Your task to perform on an android device: set the timer Image 0: 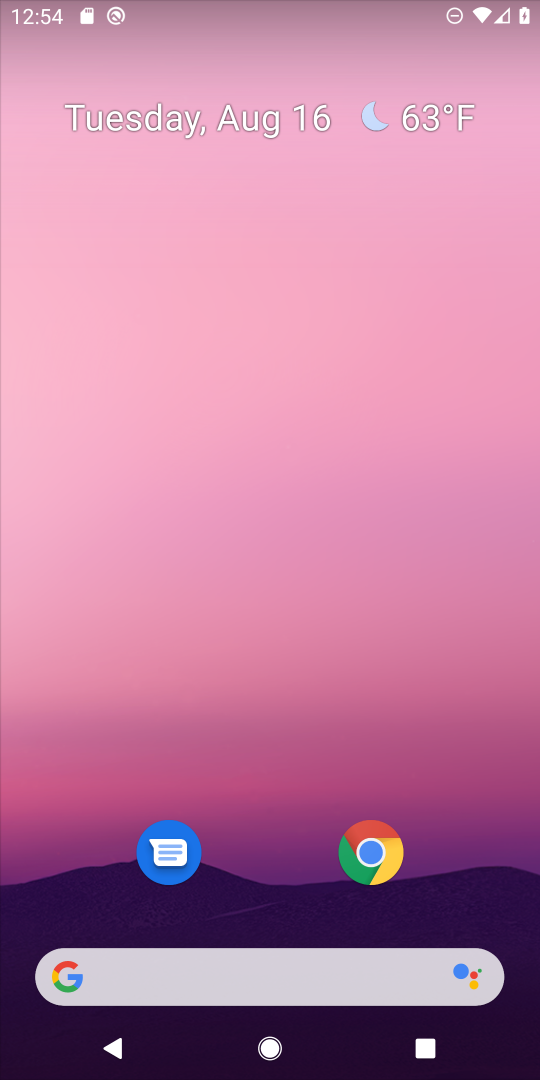
Step 0: drag from (262, 882) to (364, 199)
Your task to perform on an android device: set the timer Image 1: 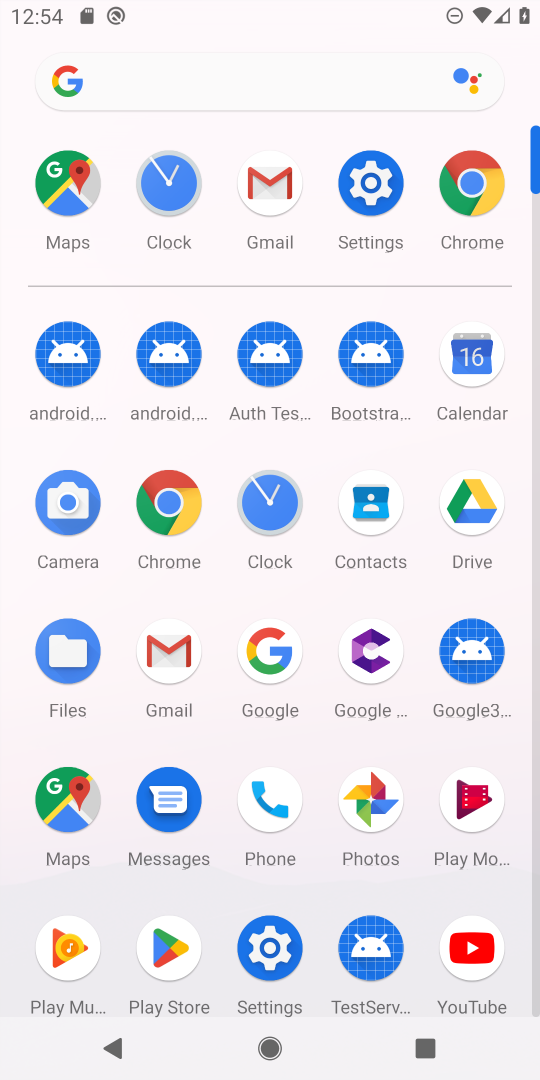
Step 1: click (272, 510)
Your task to perform on an android device: set the timer Image 2: 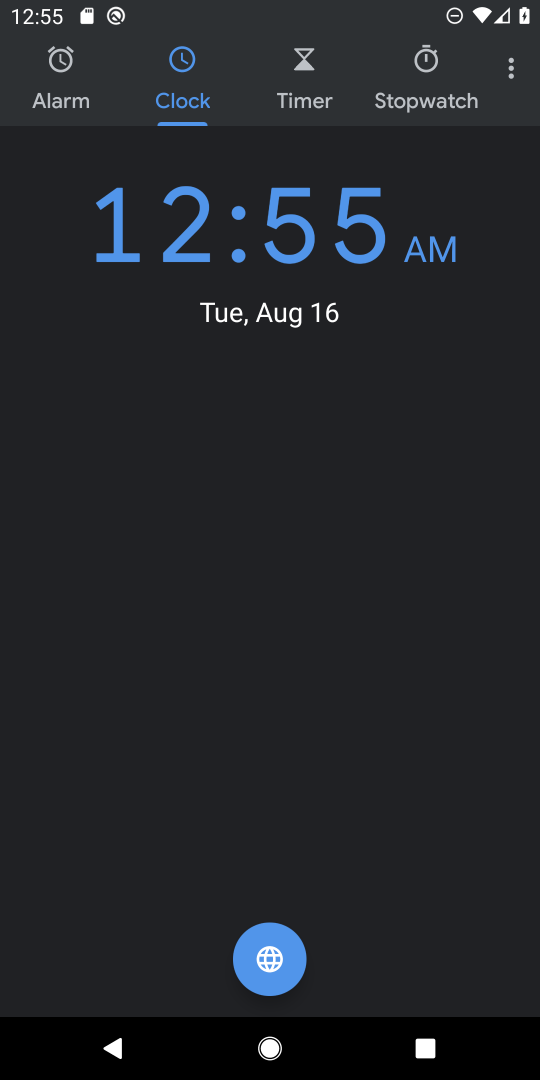
Step 2: click (307, 78)
Your task to perform on an android device: set the timer Image 3: 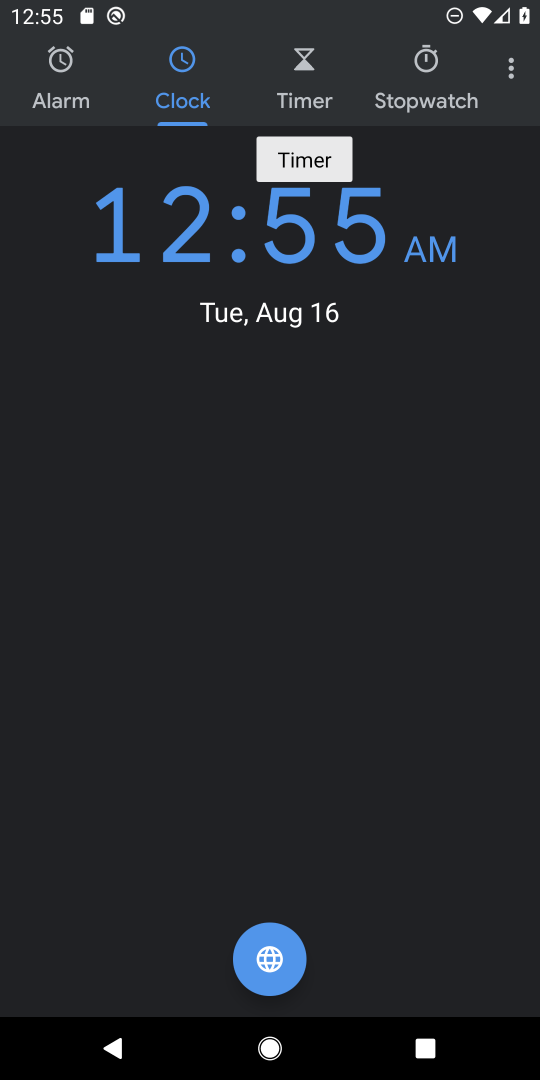
Step 3: click (313, 90)
Your task to perform on an android device: set the timer Image 4: 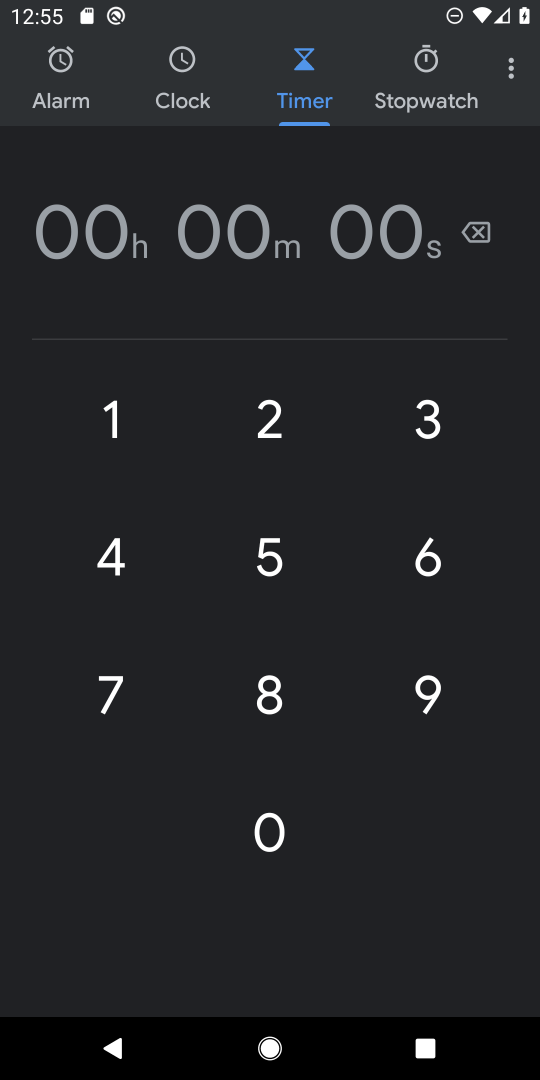
Step 4: click (271, 402)
Your task to perform on an android device: set the timer Image 5: 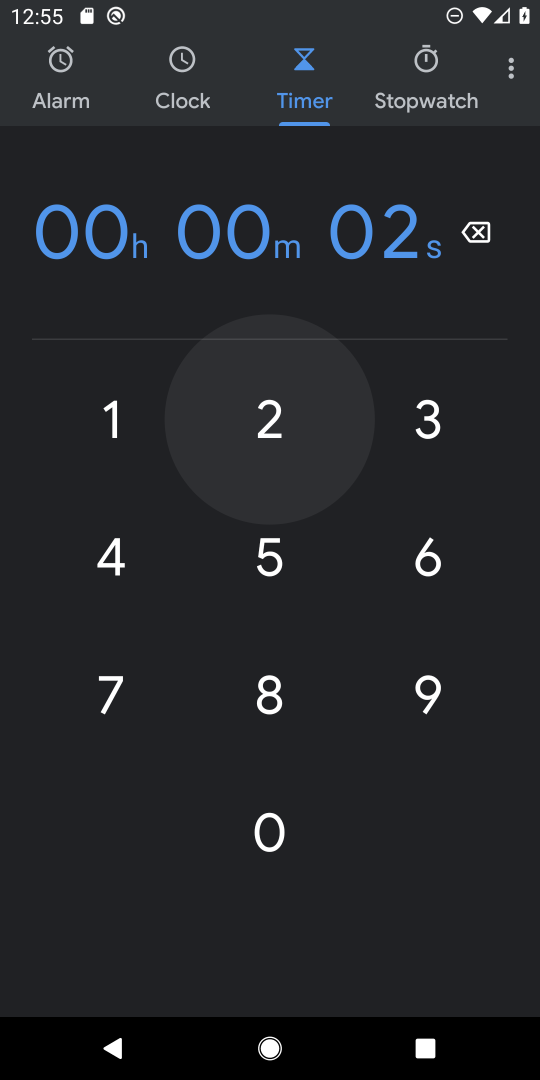
Step 5: click (439, 415)
Your task to perform on an android device: set the timer Image 6: 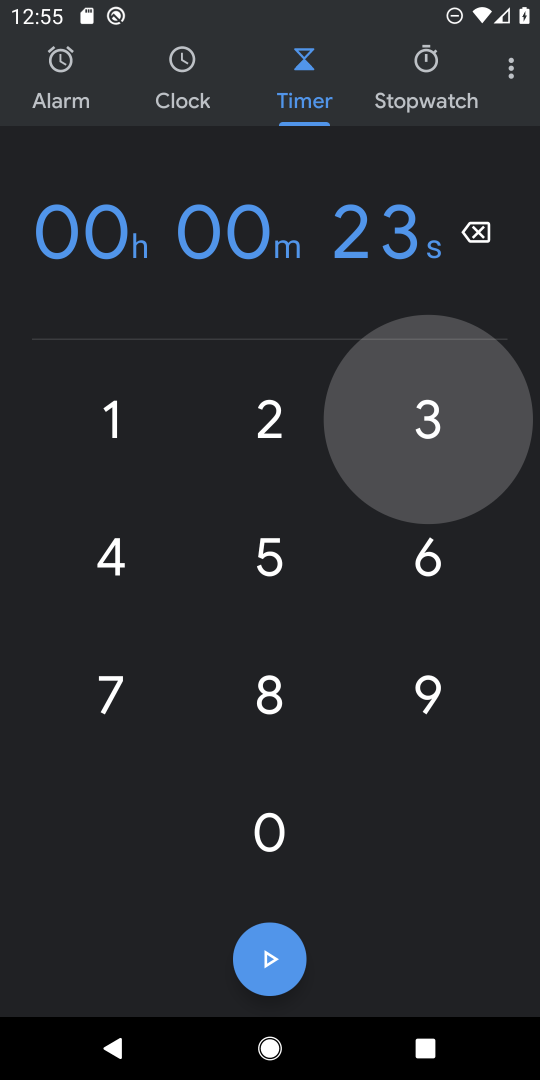
Step 6: click (280, 532)
Your task to perform on an android device: set the timer Image 7: 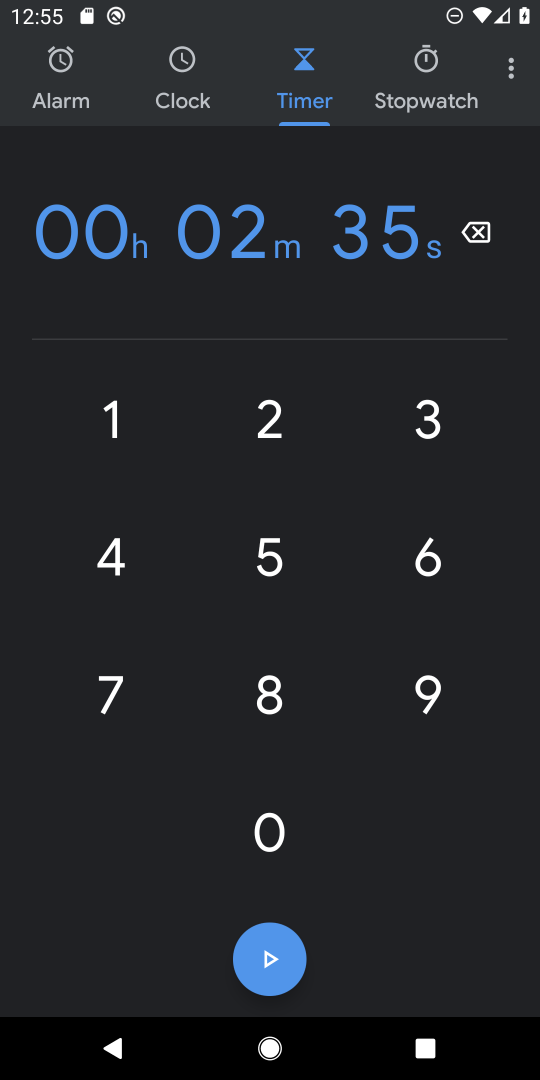
Step 7: click (437, 551)
Your task to perform on an android device: set the timer Image 8: 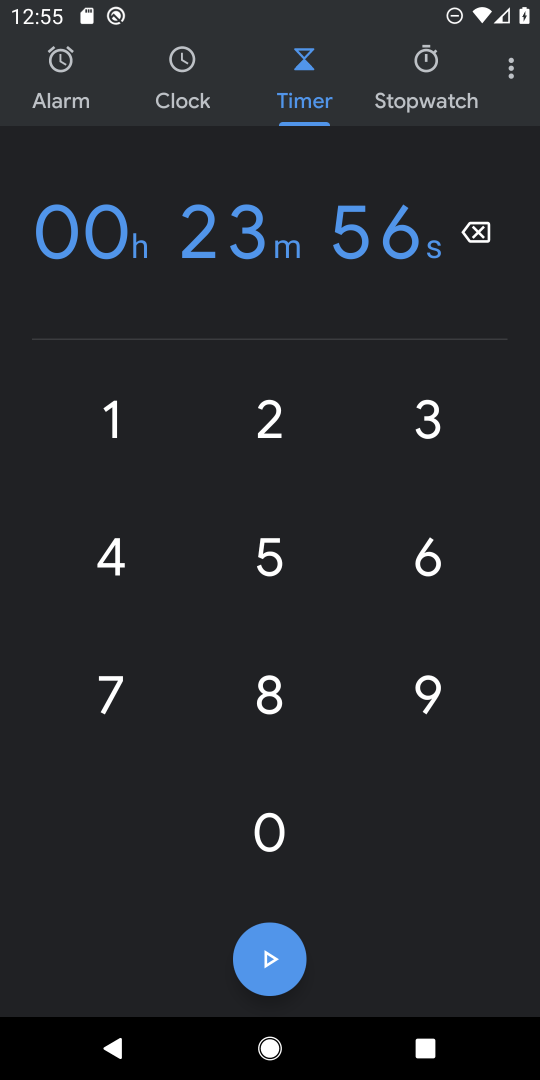
Step 8: click (116, 678)
Your task to perform on an android device: set the timer Image 9: 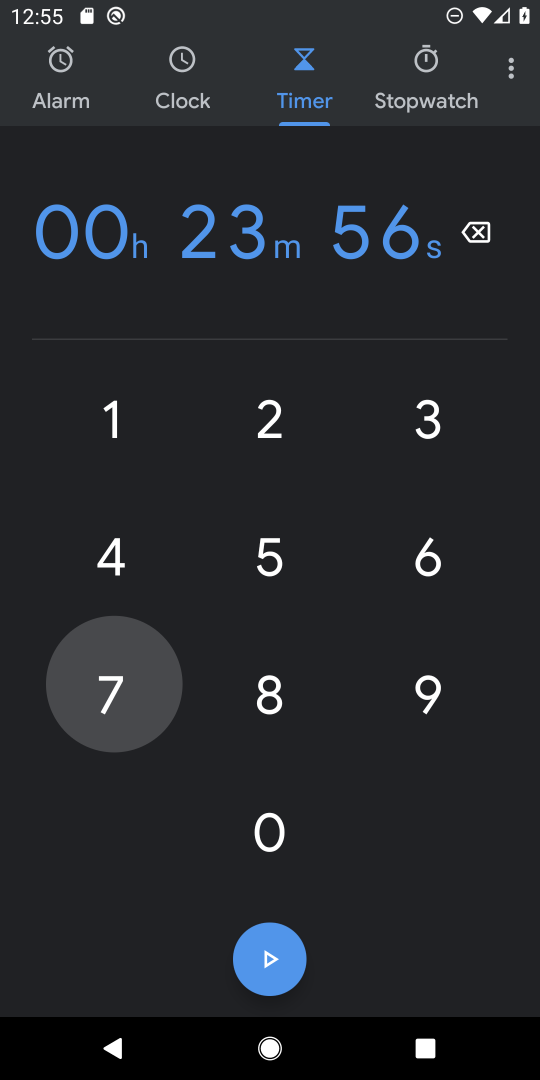
Step 9: click (255, 681)
Your task to perform on an android device: set the timer Image 10: 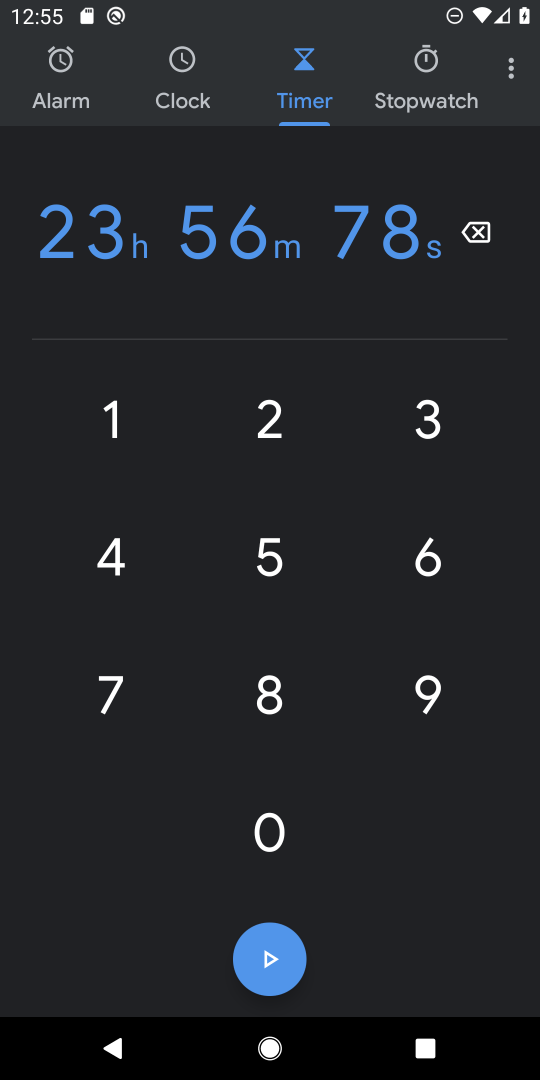
Step 10: click (286, 983)
Your task to perform on an android device: set the timer Image 11: 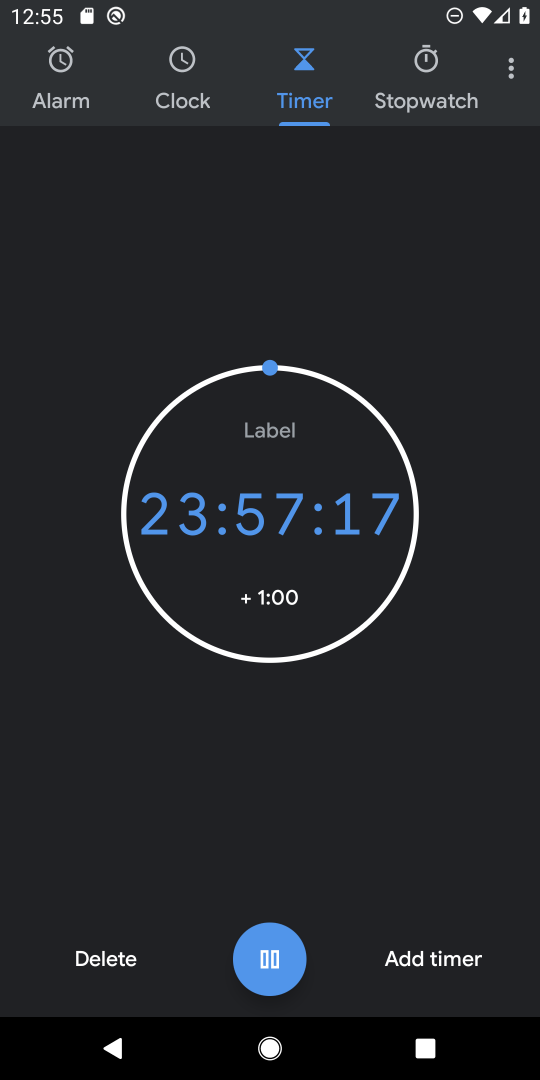
Step 11: task complete